Your task to perform on an android device: Go to Android settings Image 0: 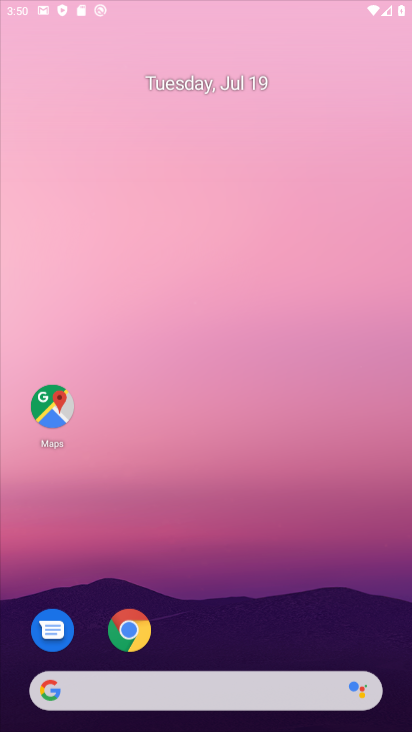
Step 0: press home button
Your task to perform on an android device: Go to Android settings Image 1: 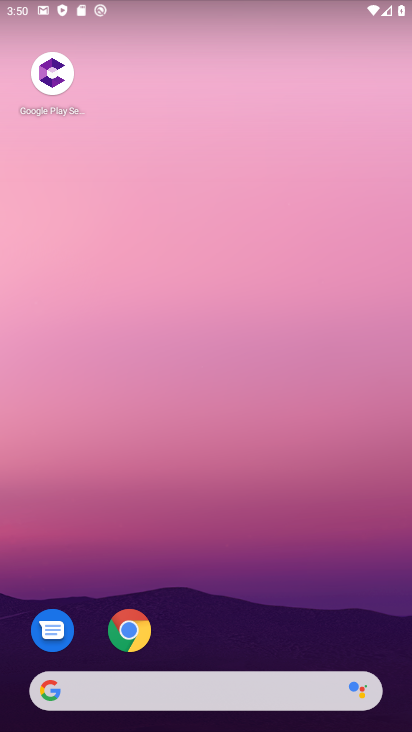
Step 1: drag from (353, 610) to (357, 105)
Your task to perform on an android device: Go to Android settings Image 2: 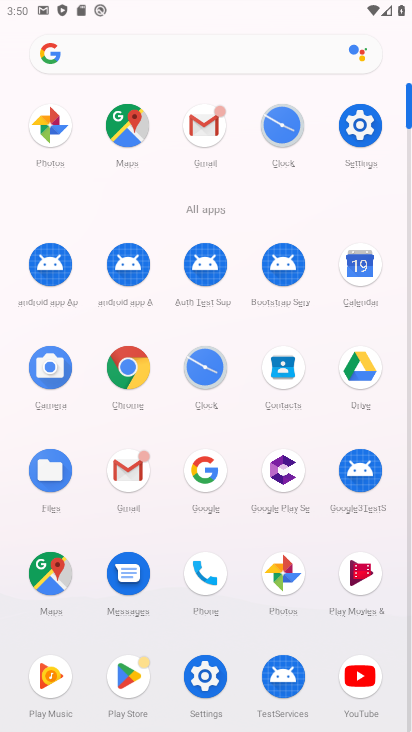
Step 2: click (357, 128)
Your task to perform on an android device: Go to Android settings Image 3: 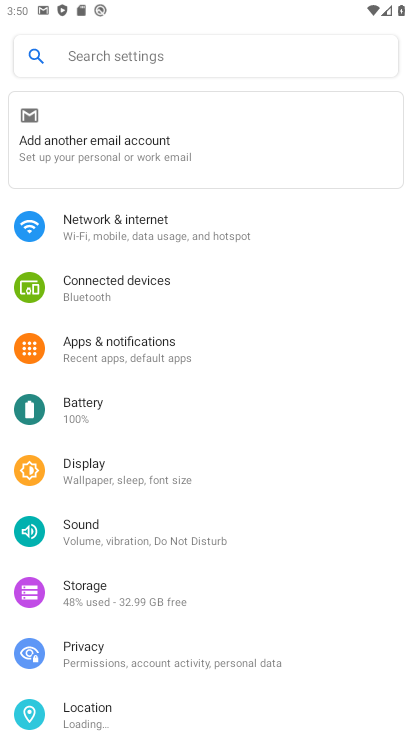
Step 3: drag from (349, 423) to (343, 350)
Your task to perform on an android device: Go to Android settings Image 4: 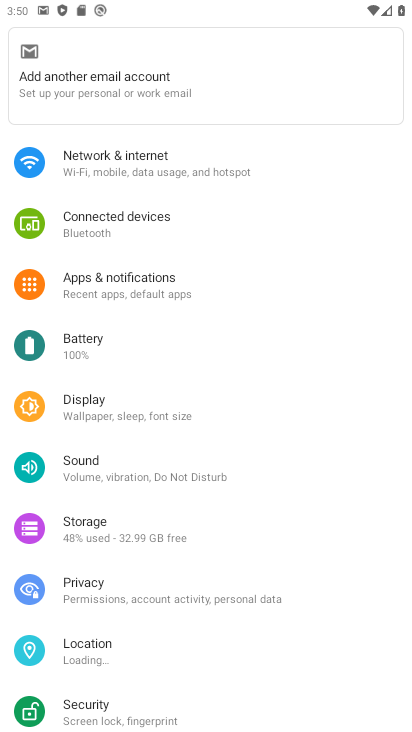
Step 4: drag from (339, 444) to (344, 357)
Your task to perform on an android device: Go to Android settings Image 5: 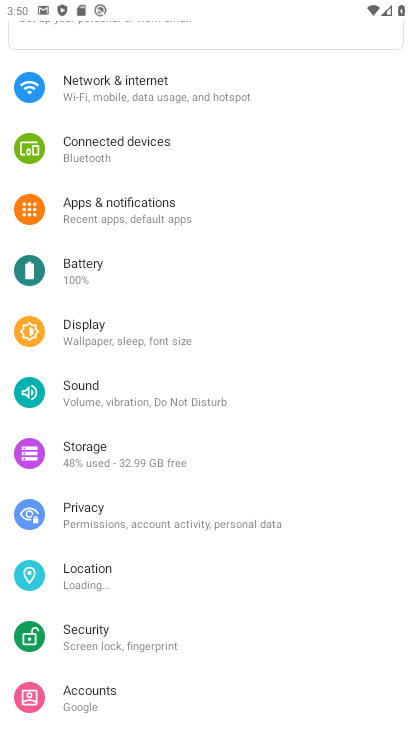
Step 5: drag from (350, 475) to (342, 342)
Your task to perform on an android device: Go to Android settings Image 6: 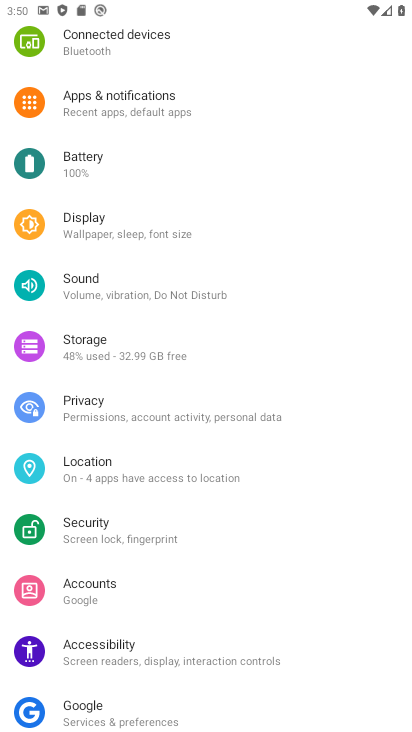
Step 6: drag from (331, 508) to (329, 391)
Your task to perform on an android device: Go to Android settings Image 7: 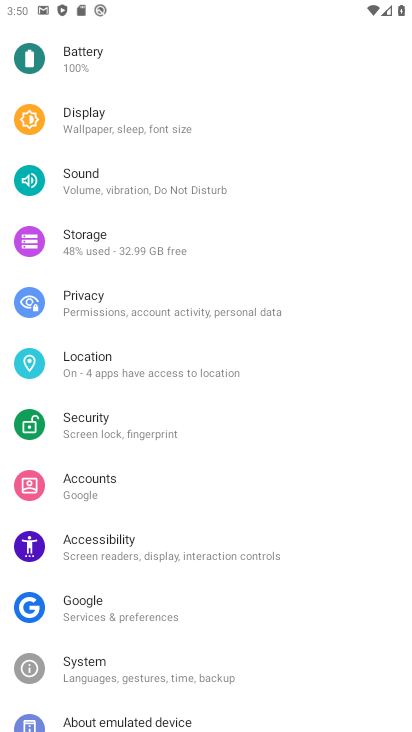
Step 7: drag from (319, 563) to (322, 436)
Your task to perform on an android device: Go to Android settings Image 8: 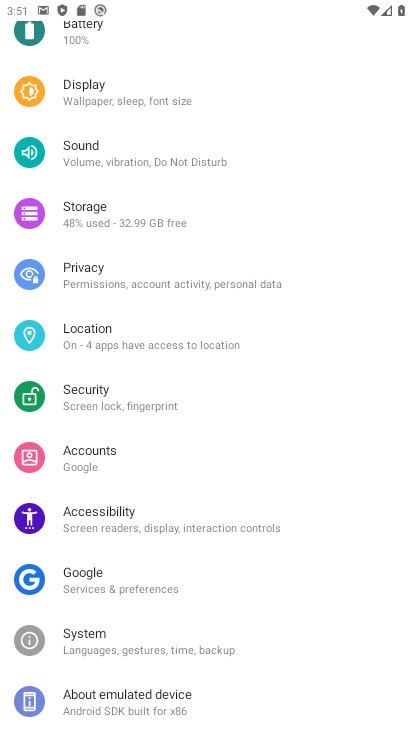
Step 8: click (308, 630)
Your task to perform on an android device: Go to Android settings Image 9: 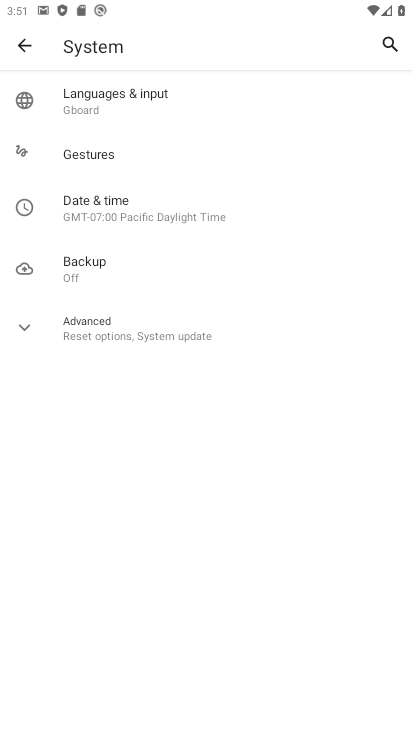
Step 9: click (155, 321)
Your task to perform on an android device: Go to Android settings Image 10: 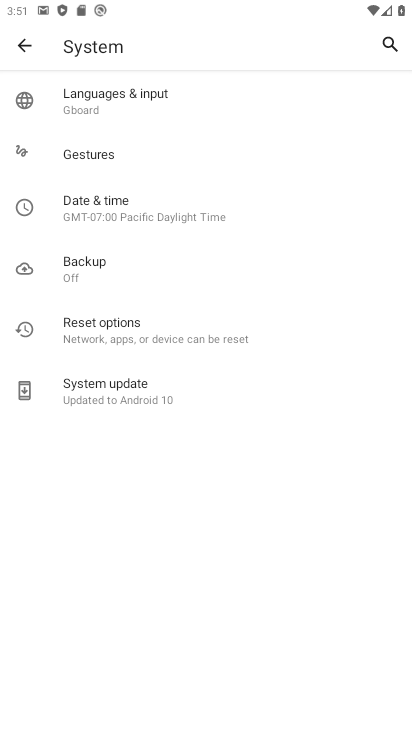
Step 10: task complete